Your task to perform on an android device: Open Google Maps and go to "Timeline" Image 0: 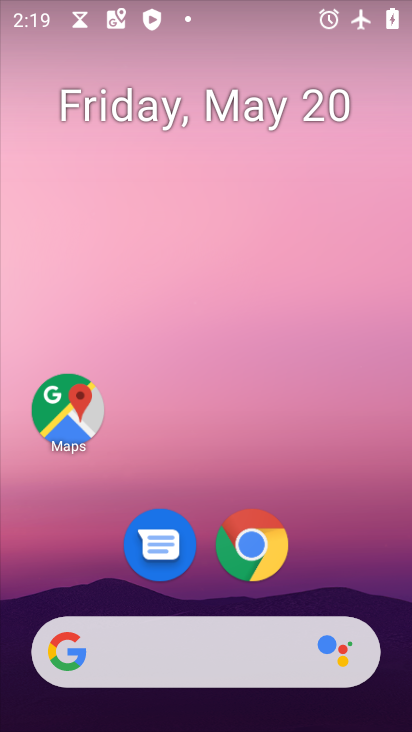
Step 0: click (65, 403)
Your task to perform on an android device: Open Google Maps and go to "Timeline" Image 1: 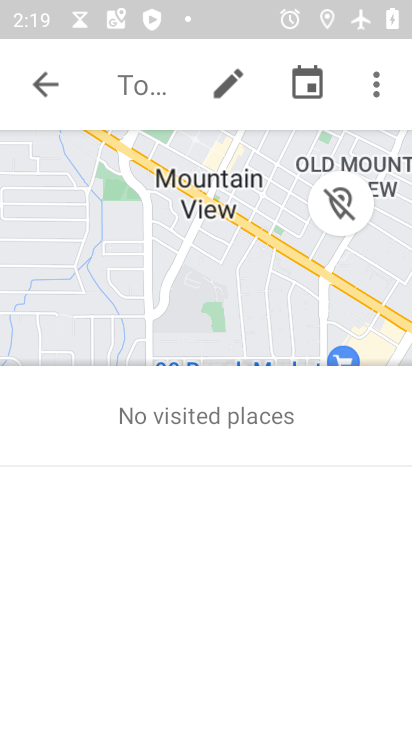
Step 1: task complete